Your task to perform on an android device: open app "Facebook Messenger" Image 0: 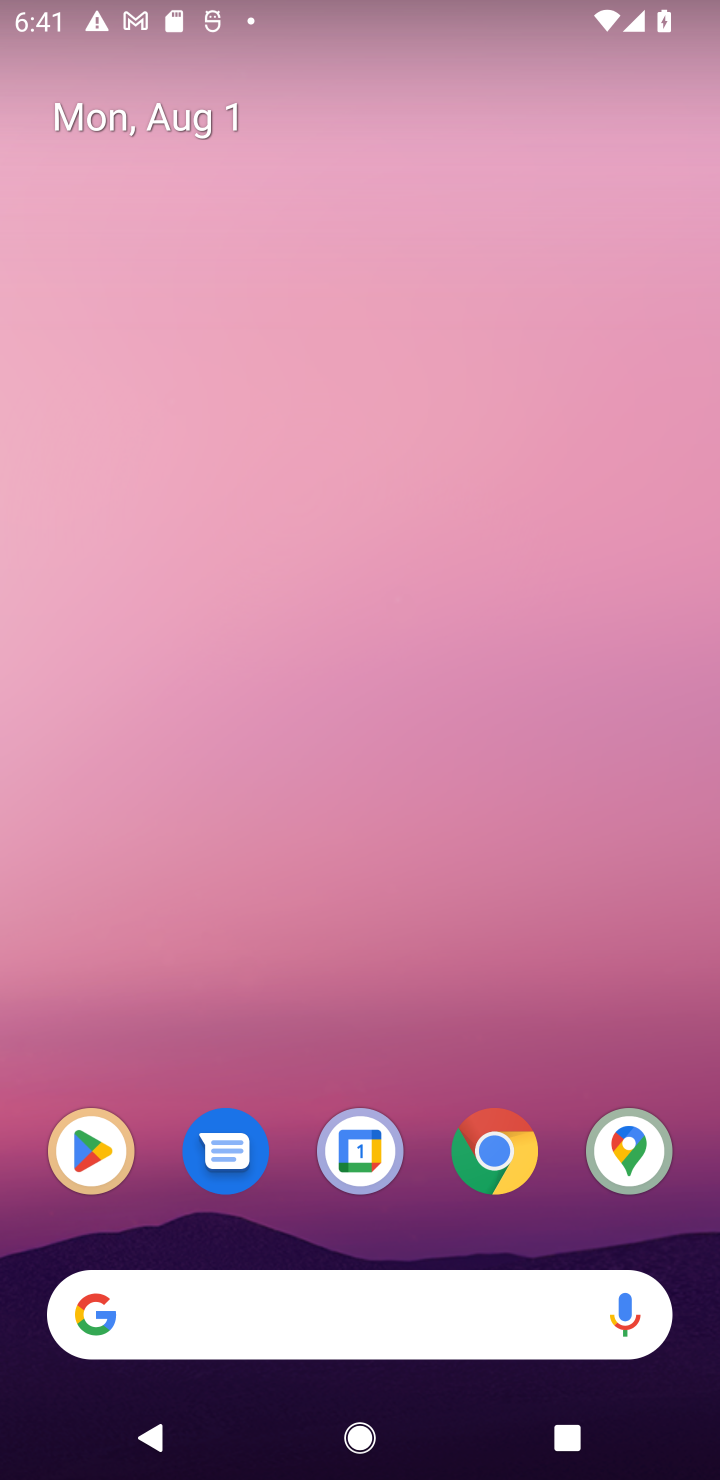
Step 0: drag from (448, 1296) to (348, 140)
Your task to perform on an android device: open app "Facebook Messenger" Image 1: 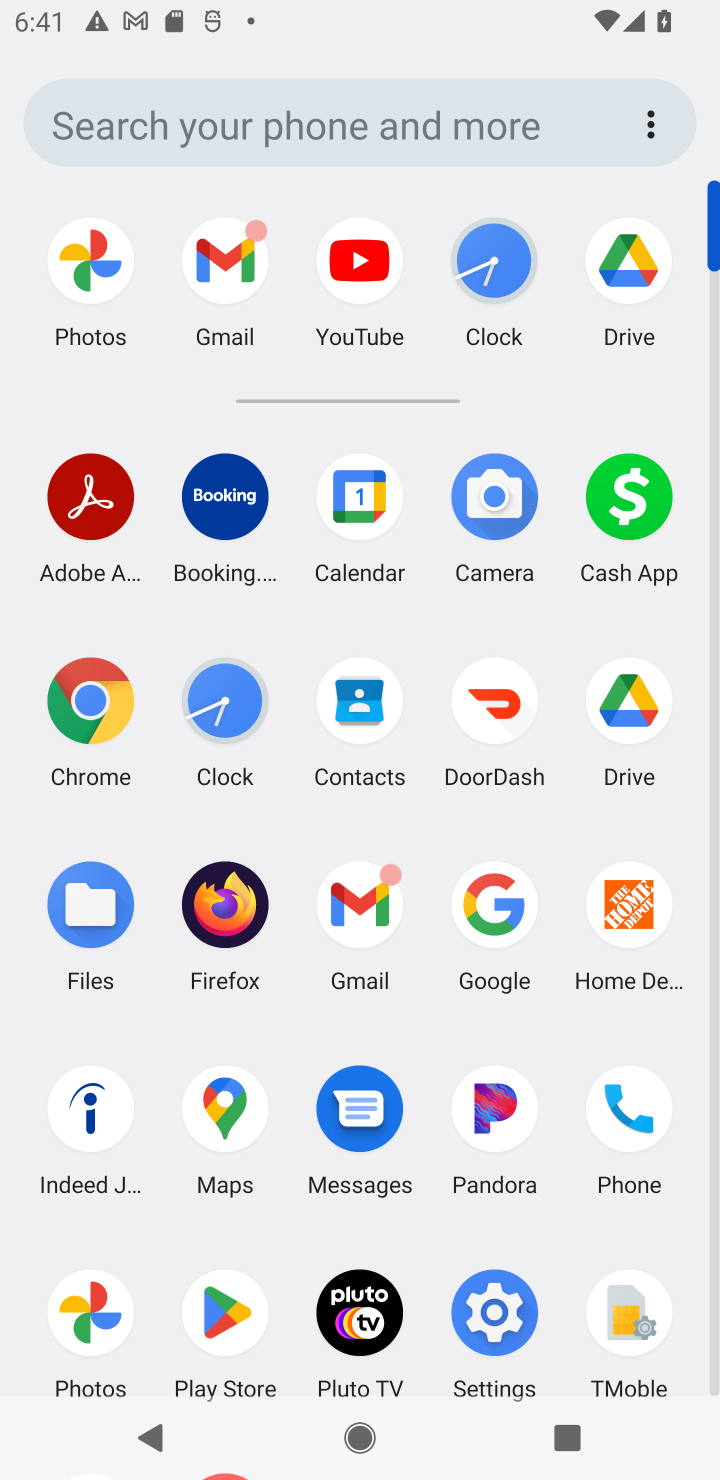
Step 1: click (231, 1316)
Your task to perform on an android device: open app "Facebook Messenger" Image 2: 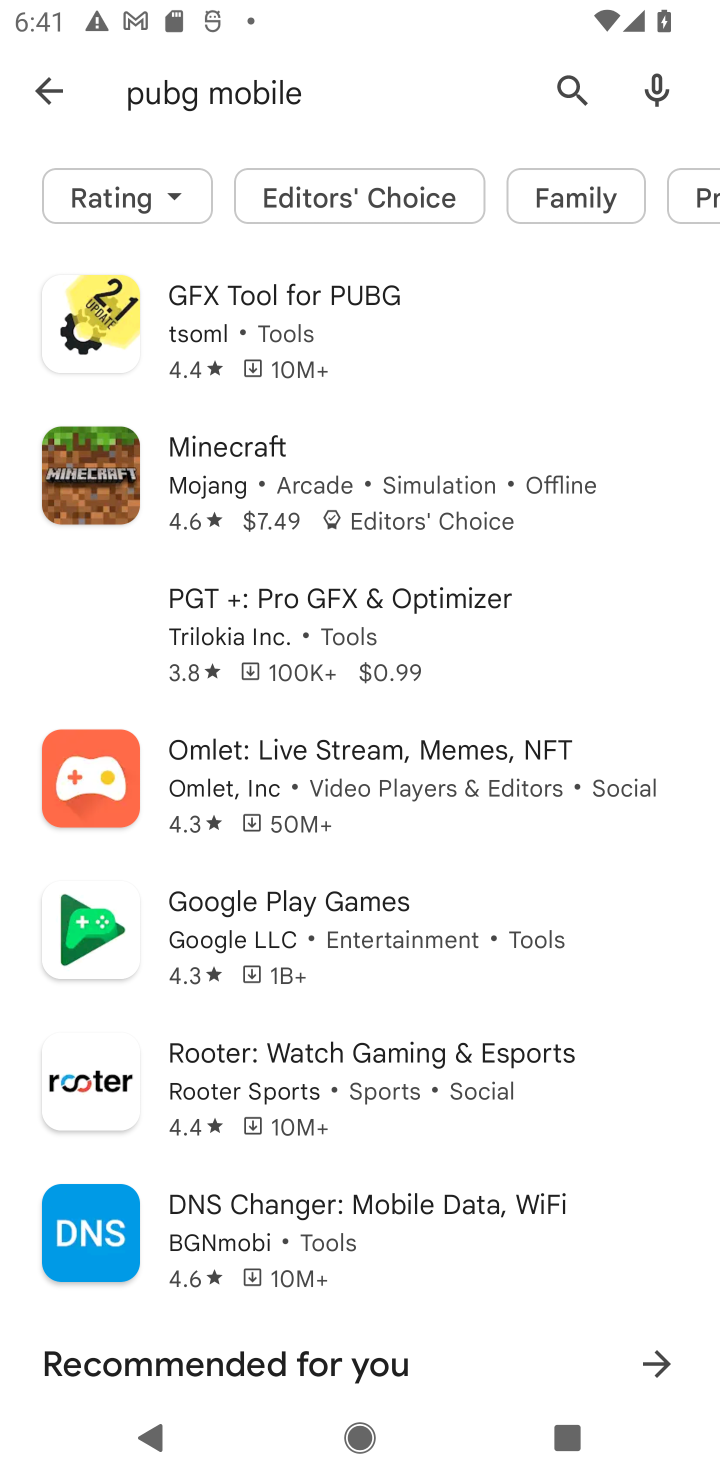
Step 2: click (573, 68)
Your task to perform on an android device: open app "Facebook Messenger" Image 3: 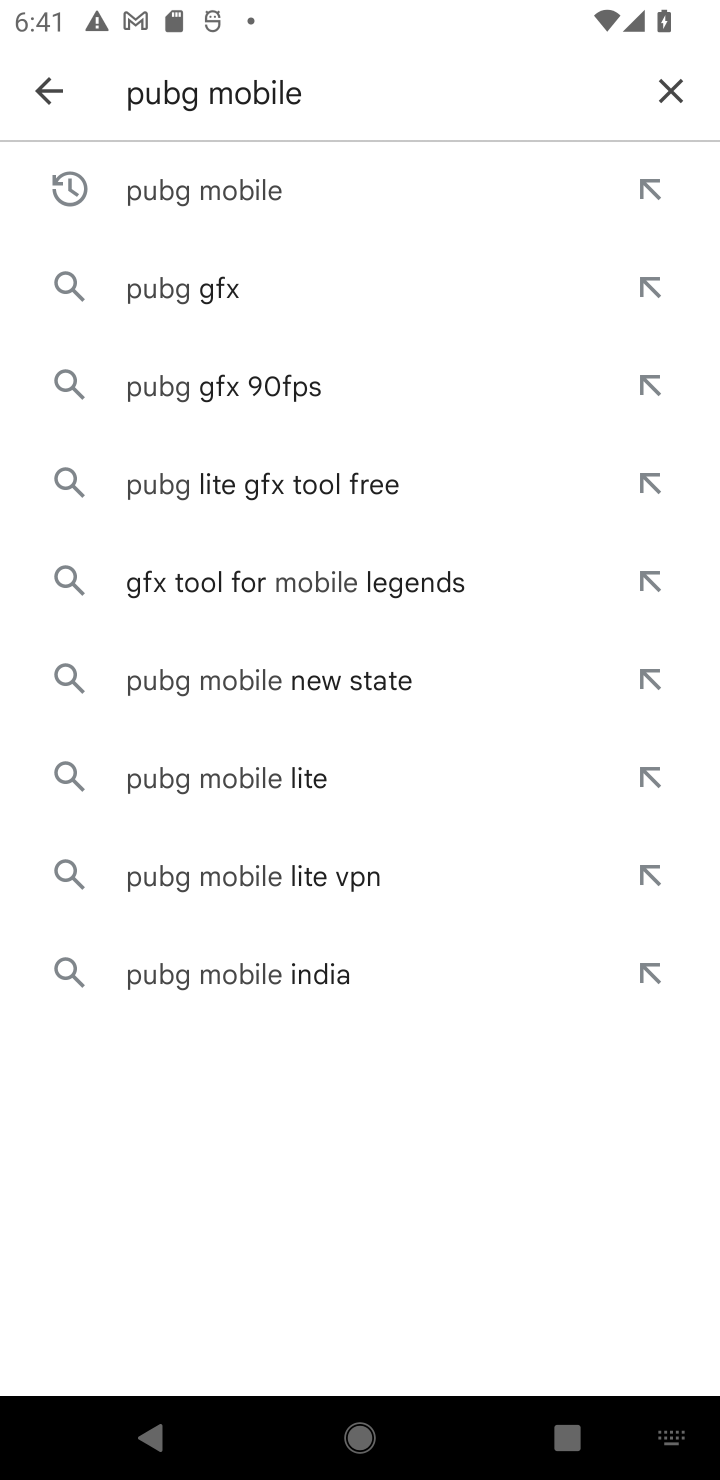
Step 3: click (670, 94)
Your task to perform on an android device: open app "Facebook Messenger" Image 4: 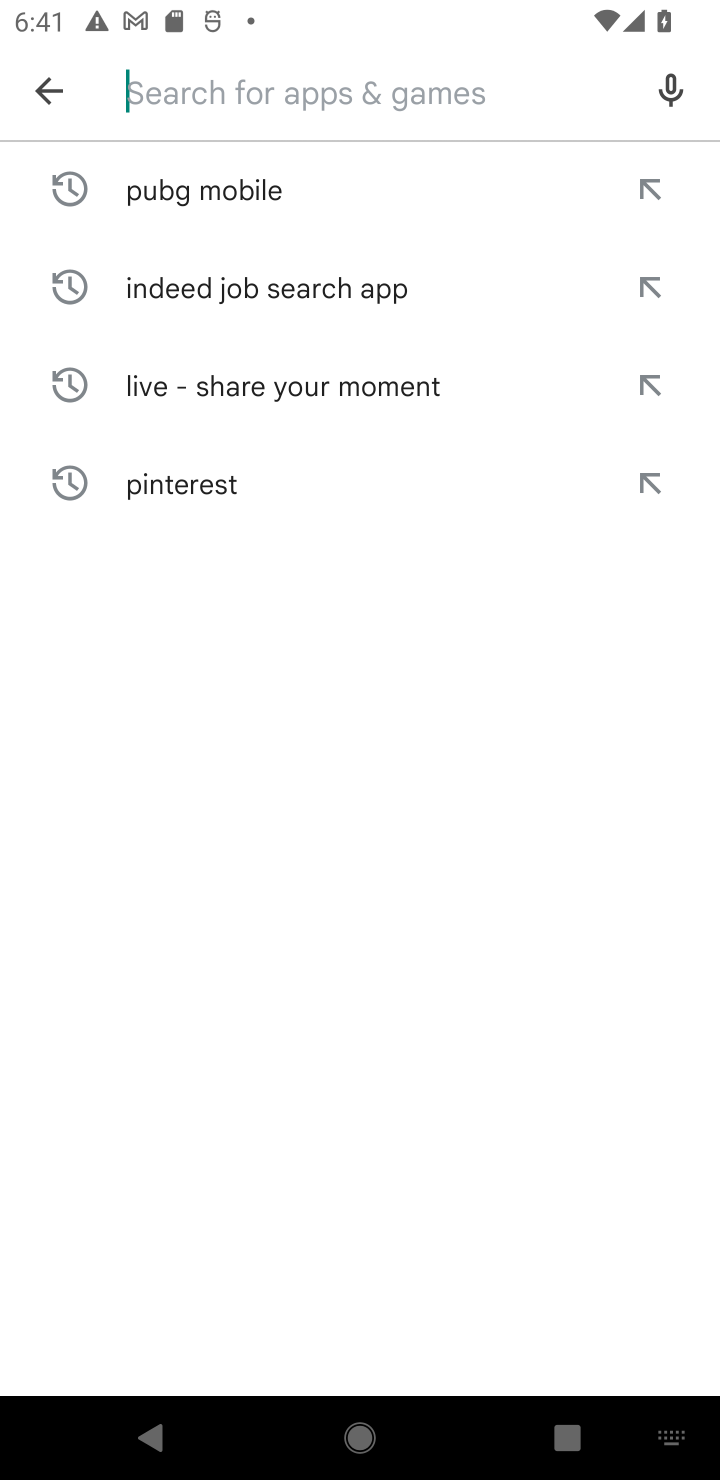
Step 4: type "facebook messenger"
Your task to perform on an android device: open app "Facebook Messenger" Image 5: 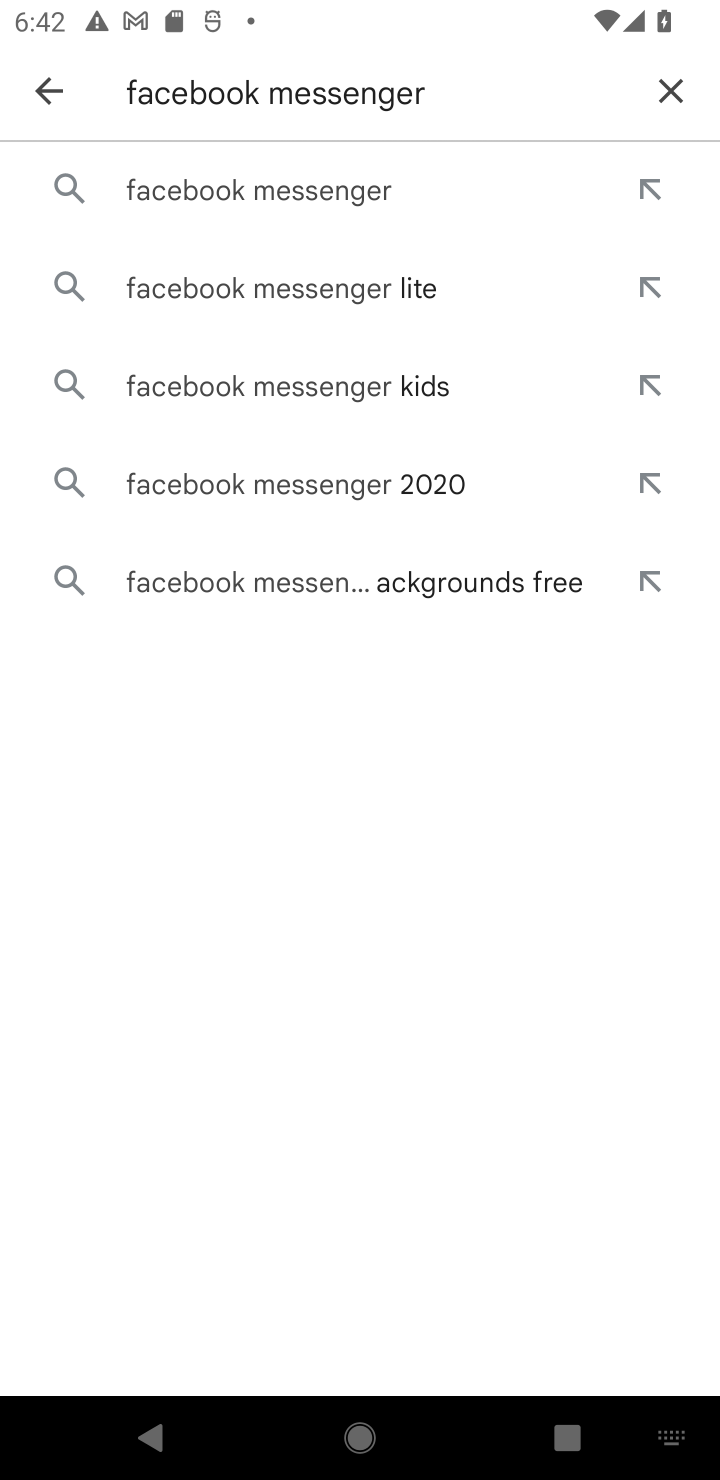
Step 5: click (243, 192)
Your task to perform on an android device: open app "Facebook Messenger" Image 6: 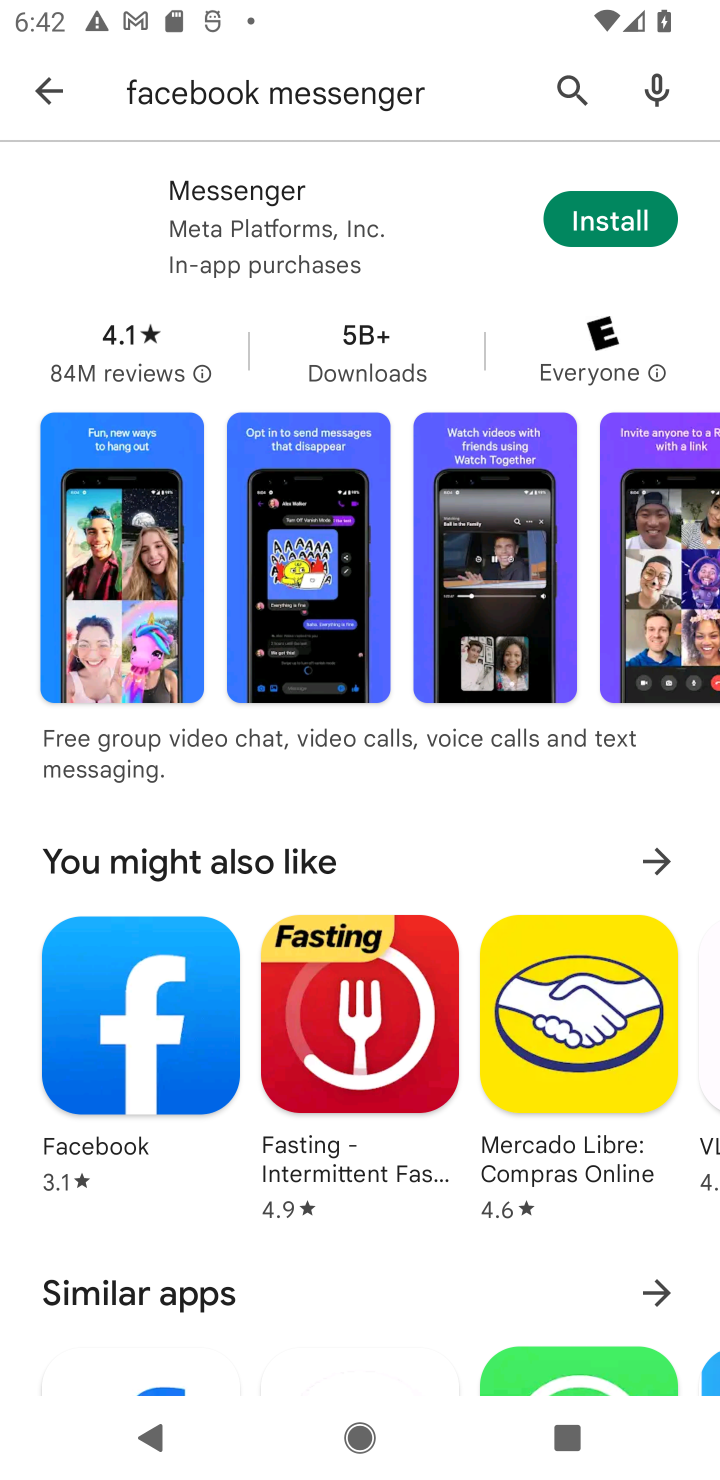
Step 6: click (243, 192)
Your task to perform on an android device: open app "Facebook Messenger" Image 7: 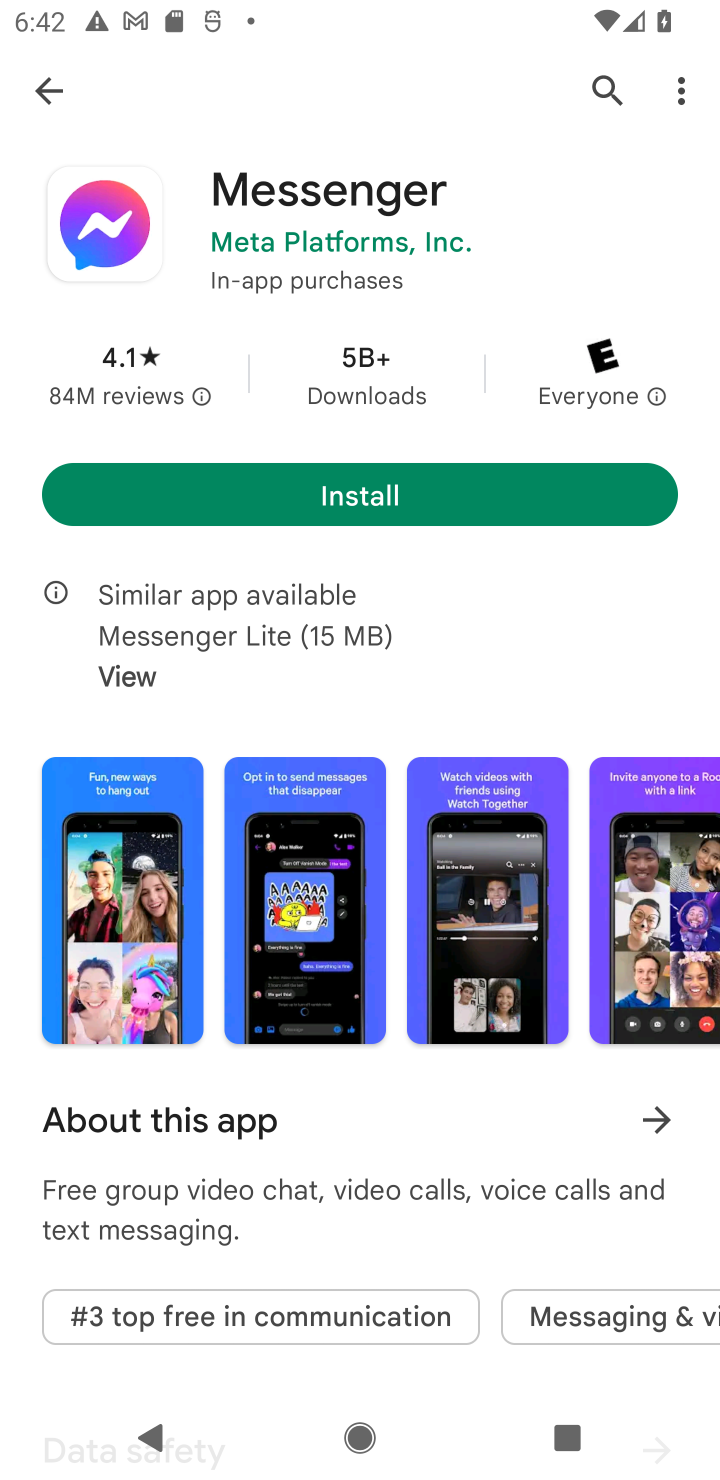
Step 7: task complete